Your task to perform on an android device: What's the news today? Image 0: 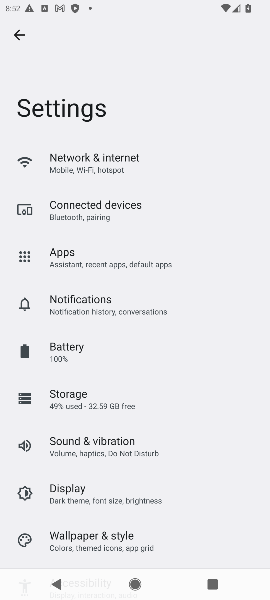
Step 0: press home button
Your task to perform on an android device: What's the news today? Image 1: 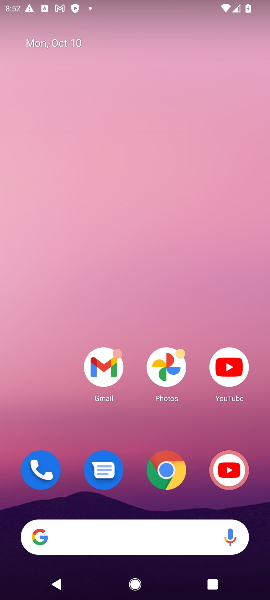
Step 1: click (154, 524)
Your task to perform on an android device: What's the news today? Image 2: 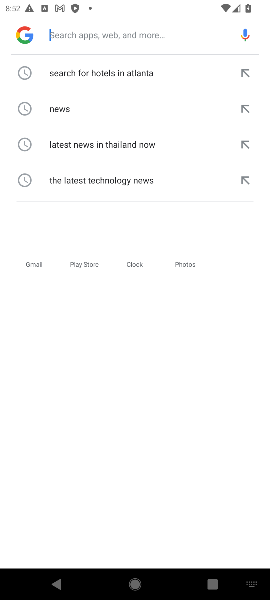
Step 2: type "What's the news today?"
Your task to perform on an android device: What's the news today? Image 3: 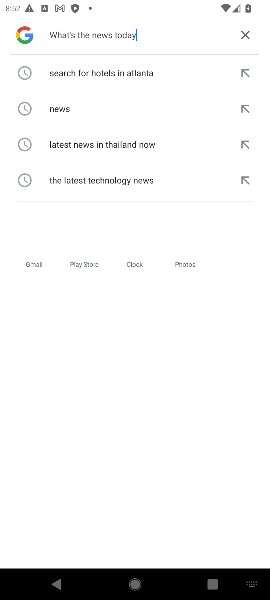
Step 3: type ""
Your task to perform on an android device: What's the news today? Image 4: 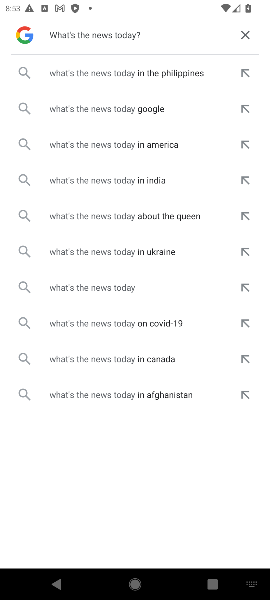
Step 4: press enter
Your task to perform on an android device: What's the news today? Image 5: 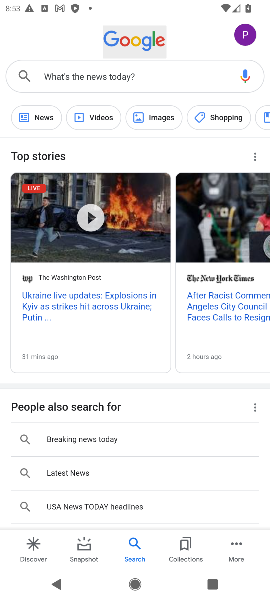
Step 5: click (93, 295)
Your task to perform on an android device: What's the news today? Image 6: 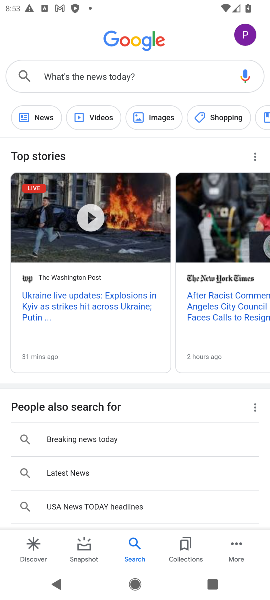
Step 6: click (96, 297)
Your task to perform on an android device: What's the news today? Image 7: 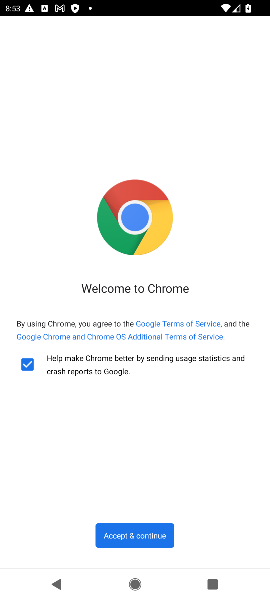
Step 7: click (130, 537)
Your task to perform on an android device: What's the news today? Image 8: 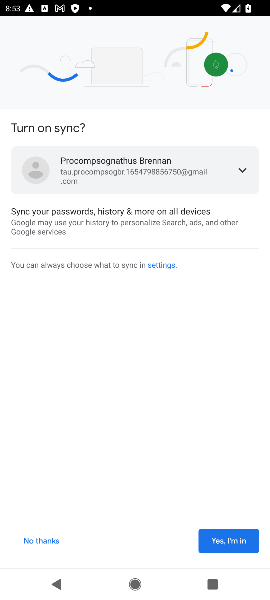
Step 8: click (203, 545)
Your task to perform on an android device: What's the news today? Image 9: 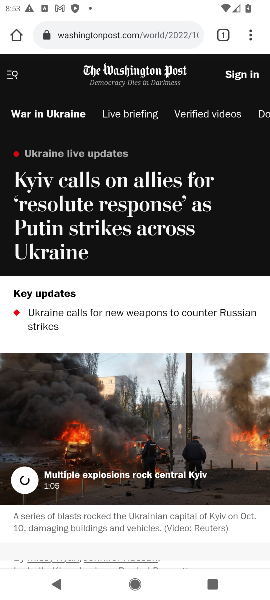
Step 9: drag from (194, 519) to (252, 164)
Your task to perform on an android device: What's the news today? Image 10: 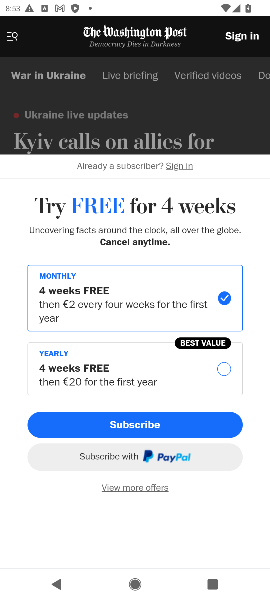
Step 10: drag from (215, 357) to (227, 121)
Your task to perform on an android device: What's the news today? Image 11: 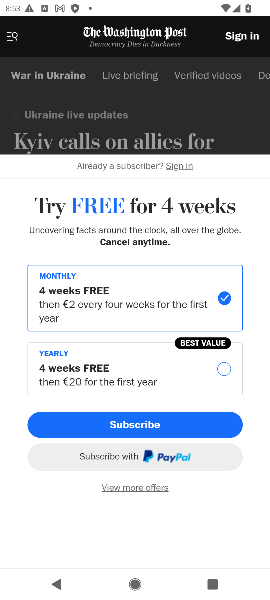
Step 11: click (82, 118)
Your task to perform on an android device: What's the news today? Image 12: 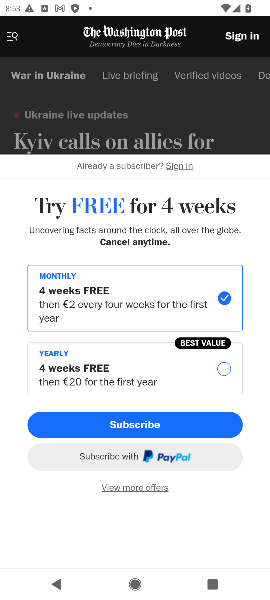
Step 12: press back button
Your task to perform on an android device: What's the news today? Image 13: 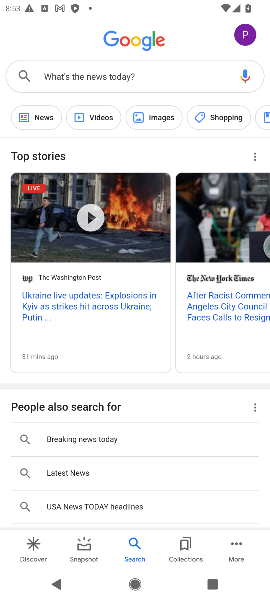
Step 13: drag from (204, 308) to (44, 293)
Your task to perform on an android device: What's the news today? Image 14: 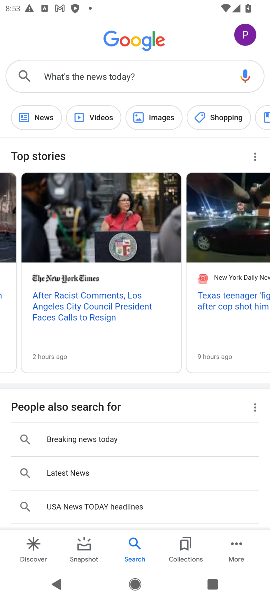
Step 14: click (83, 308)
Your task to perform on an android device: What's the news today? Image 15: 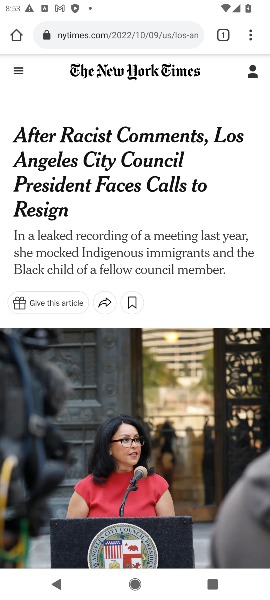
Step 15: drag from (112, 459) to (163, 91)
Your task to perform on an android device: What's the news today? Image 16: 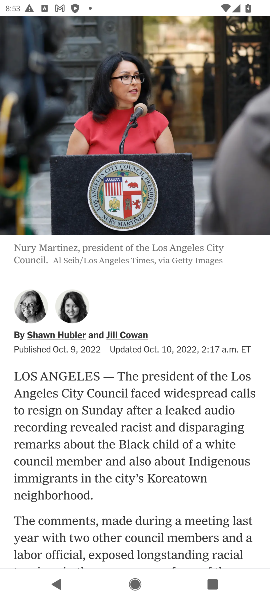
Step 16: drag from (167, 457) to (157, 128)
Your task to perform on an android device: What's the news today? Image 17: 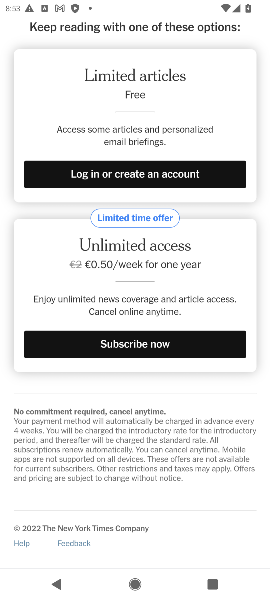
Step 17: drag from (170, 461) to (191, 572)
Your task to perform on an android device: What's the news today? Image 18: 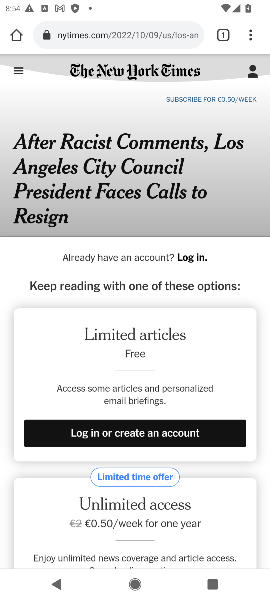
Step 18: drag from (161, 189) to (149, 504)
Your task to perform on an android device: What's the news today? Image 19: 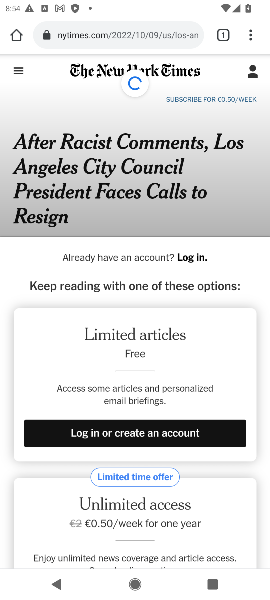
Step 19: drag from (171, 147) to (171, 429)
Your task to perform on an android device: What's the news today? Image 20: 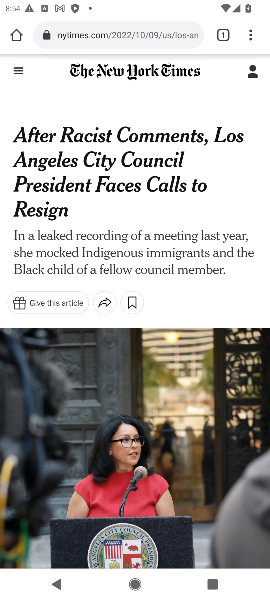
Step 20: press back button
Your task to perform on an android device: What's the news today? Image 21: 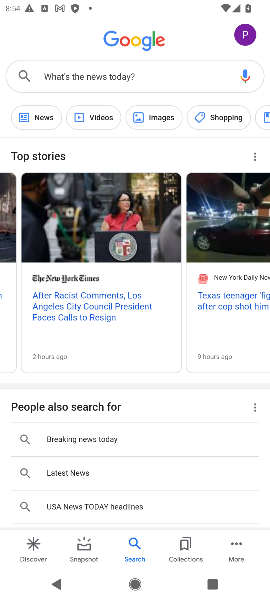
Step 21: drag from (241, 307) to (20, 314)
Your task to perform on an android device: What's the news today? Image 22: 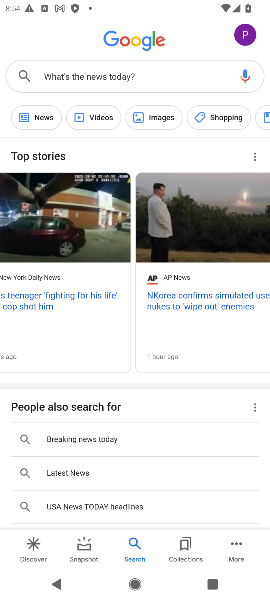
Step 22: drag from (217, 281) to (1, 319)
Your task to perform on an android device: What's the news today? Image 23: 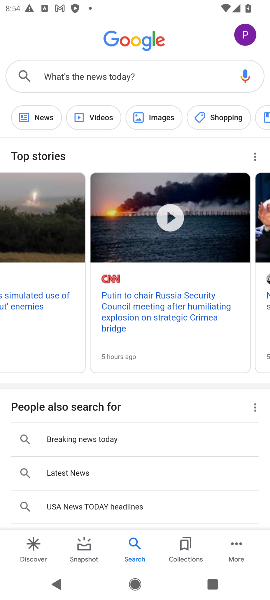
Step 23: drag from (155, 493) to (153, 141)
Your task to perform on an android device: What's the news today? Image 24: 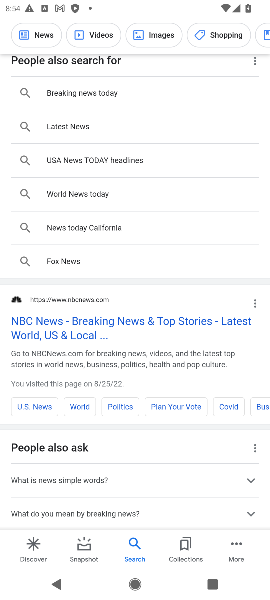
Step 24: click (129, 319)
Your task to perform on an android device: What's the news today? Image 25: 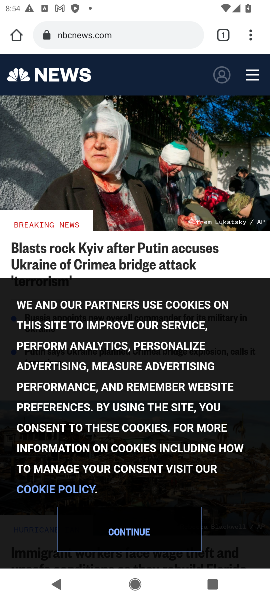
Step 25: drag from (153, 469) to (180, 176)
Your task to perform on an android device: What's the news today? Image 26: 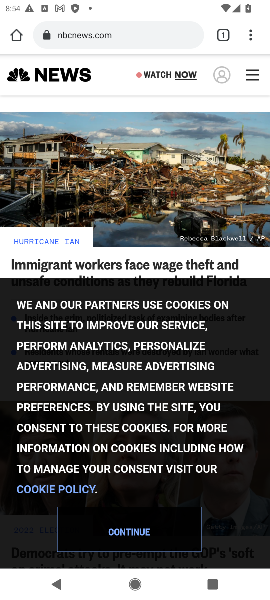
Step 26: drag from (155, 431) to (163, 194)
Your task to perform on an android device: What's the news today? Image 27: 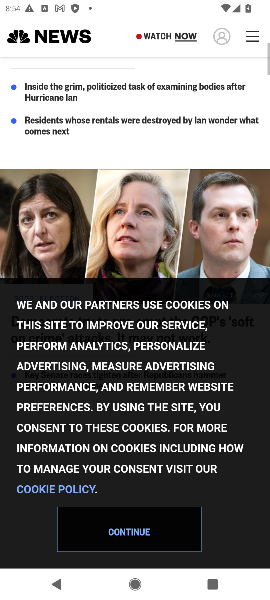
Step 27: click (98, 524)
Your task to perform on an android device: What's the news today? Image 28: 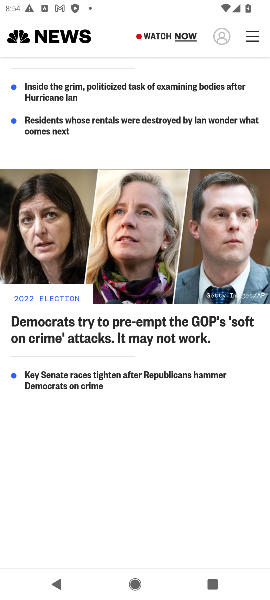
Step 28: drag from (117, 343) to (144, 92)
Your task to perform on an android device: What's the news today? Image 29: 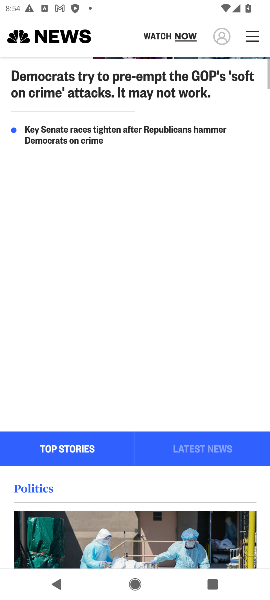
Step 29: drag from (109, 328) to (132, 103)
Your task to perform on an android device: What's the news today? Image 30: 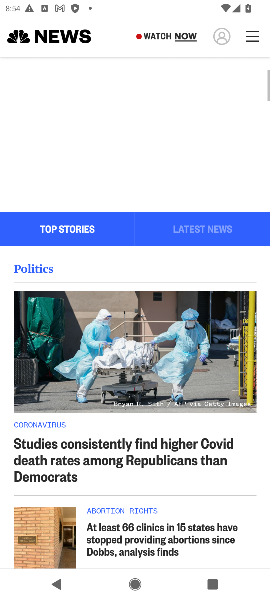
Step 30: drag from (141, 330) to (176, 145)
Your task to perform on an android device: What's the news today? Image 31: 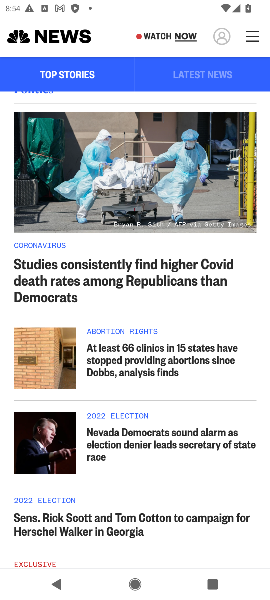
Step 31: drag from (135, 391) to (63, 174)
Your task to perform on an android device: What's the news today? Image 32: 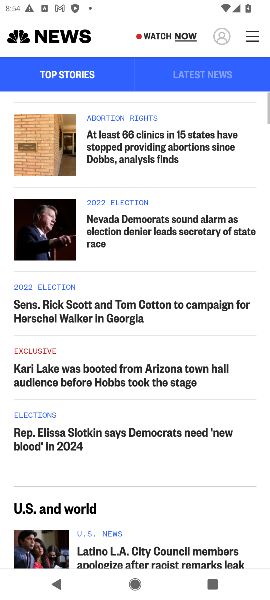
Step 32: drag from (81, 404) to (139, 160)
Your task to perform on an android device: What's the news today? Image 33: 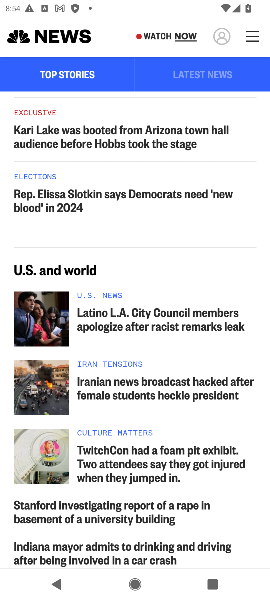
Step 33: press back button
Your task to perform on an android device: What's the news today? Image 34: 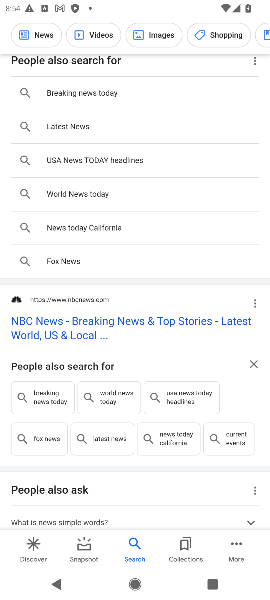
Step 34: drag from (149, 173) to (162, 102)
Your task to perform on an android device: What's the news today? Image 35: 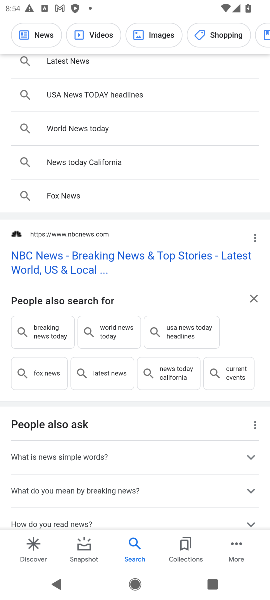
Step 35: click (160, 146)
Your task to perform on an android device: What's the news today? Image 36: 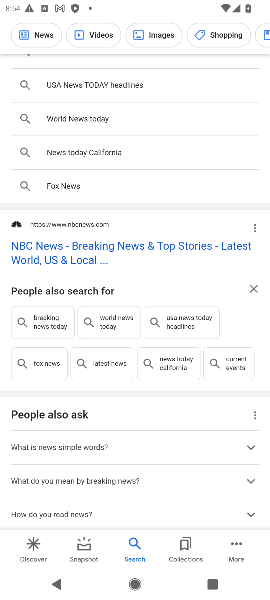
Step 36: click (96, 242)
Your task to perform on an android device: What's the news today? Image 37: 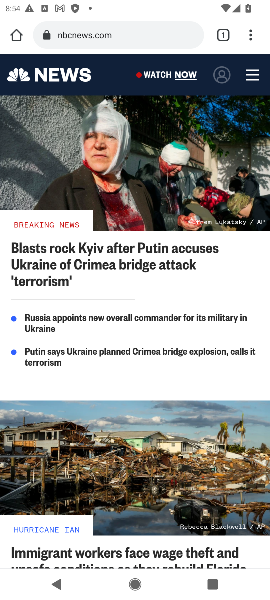
Step 37: task complete